Your task to perform on an android device: delete browsing data in the chrome app Image 0: 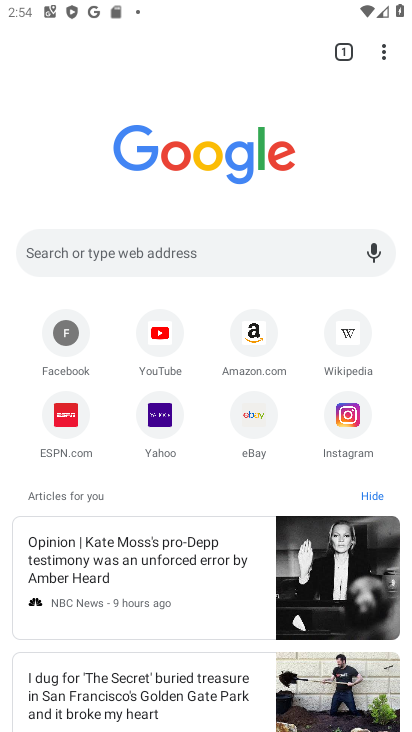
Step 0: click (184, 251)
Your task to perform on an android device: delete browsing data in the chrome app Image 1: 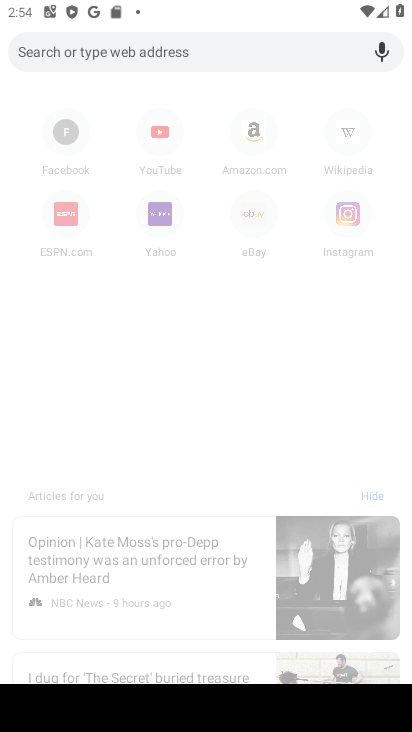
Step 1: press home button
Your task to perform on an android device: delete browsing data in the chrome app Image 2: 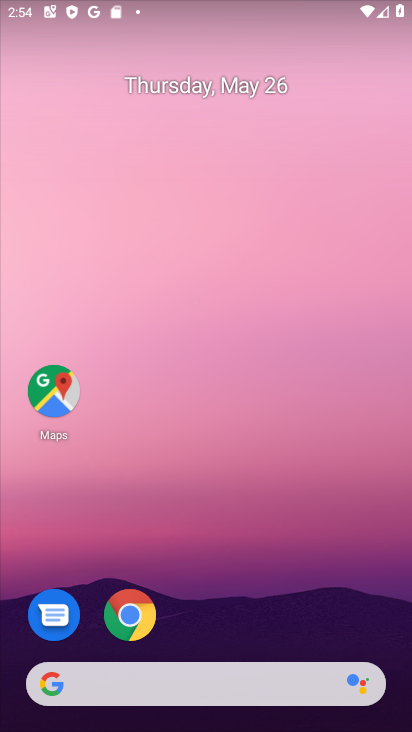
Step 2: click (141, 695)
Your task to perform on an android device: delete browsing data in the chrome app Image 3: 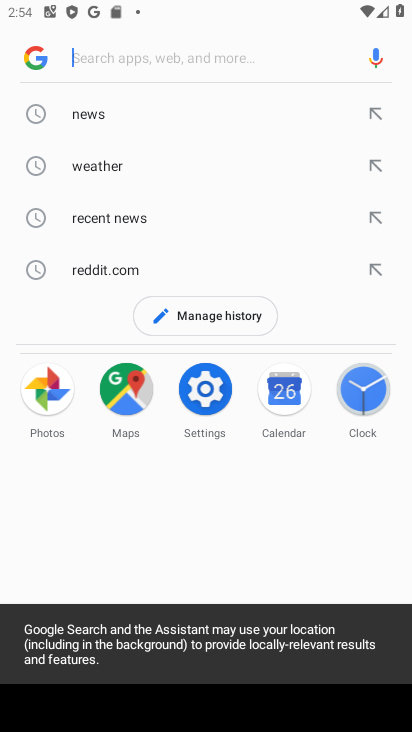
Step 3: click (93, 166)
Your task to perform on an android device: delete browsing data in the chrome app Image 4: 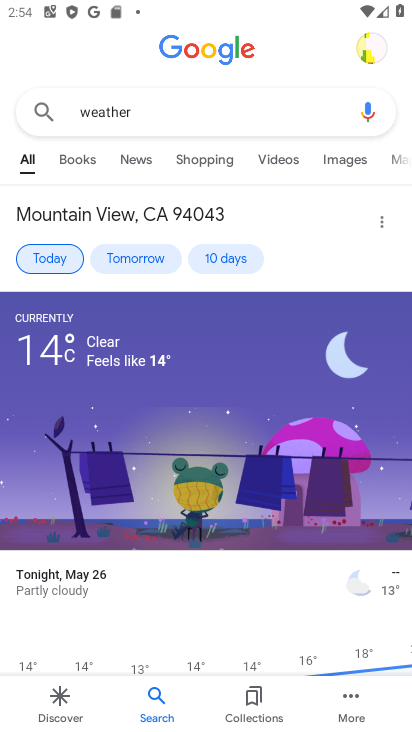
Step 4: press back button
Your task to perform on an android device: delete browsing data in the chrome app Image 5: 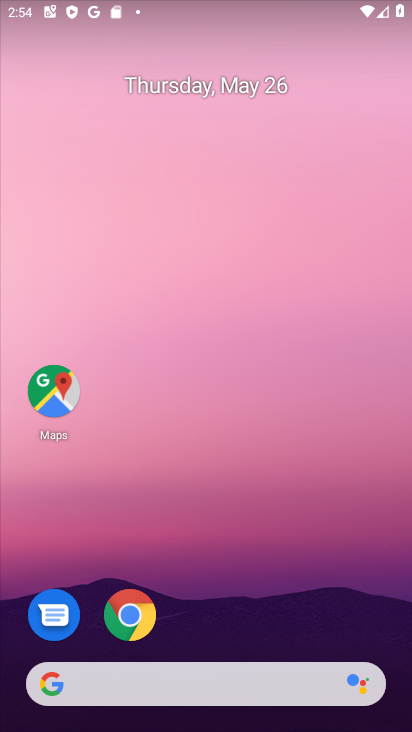
Step 5: click (122, 615)
Your task to perform on an android device: delete browsing data in the chrome app Image 6: 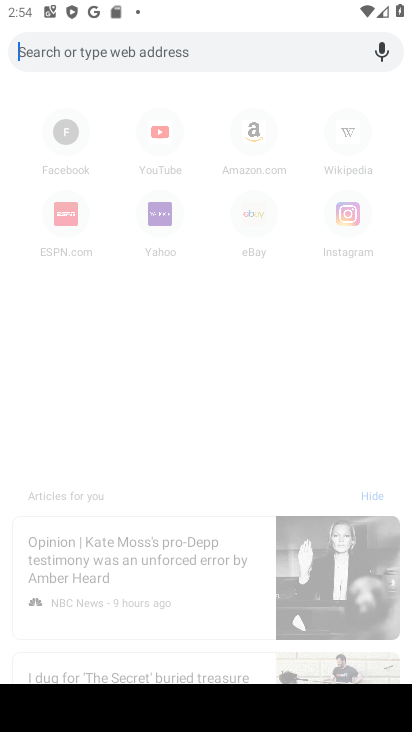
Step 6: press back button
Your task to perform on an android device: delete browsing data in the chrome app Image 7: 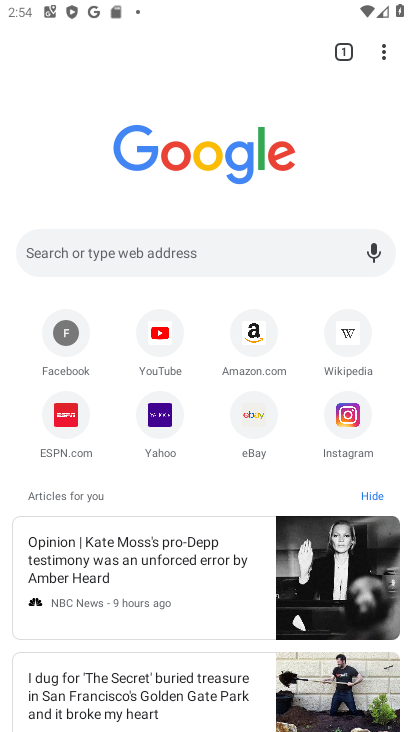
Step 7: click (379, 53)
Your task to perform on an android device: delete browsing data in the chrome app Image 8: 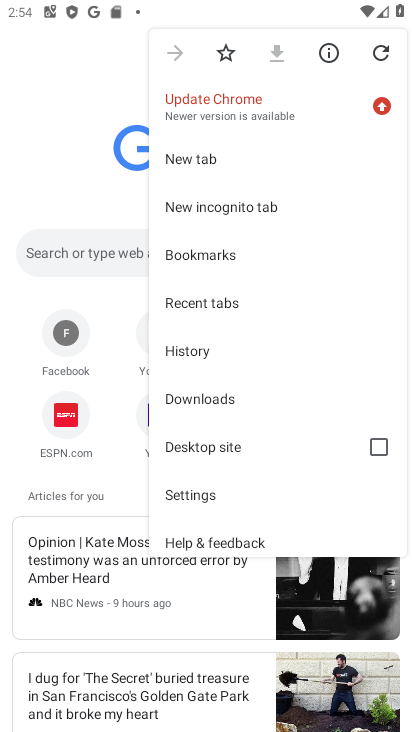
Step 8: click (199, 352)
Your task to perform on an android device: delete browsing data in the chrome app Image 9: 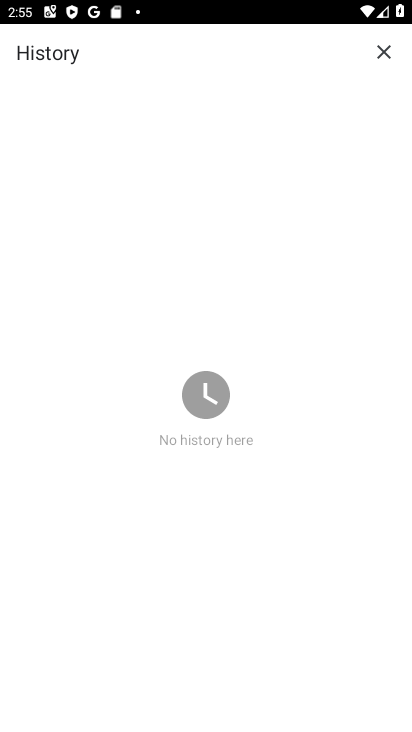
Step 9: task complete